Your task to perform on an android device: Open Yahoo.com Image 0: 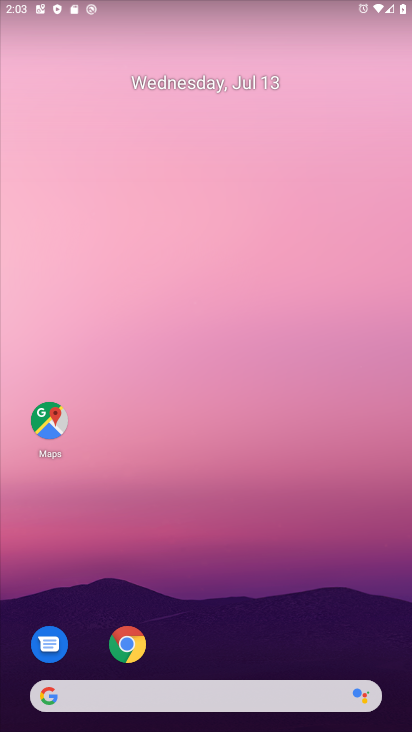
Step 0: drag from (218, 670) to (232, 48)
Your task to perform on an android device: Open Yahoo.com Image 1: 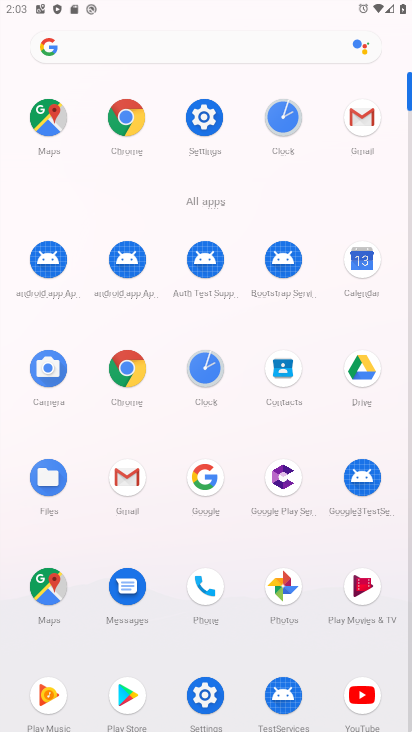
Step 1: click (124, 115)
Your task to perform on an android device: Open Yahoo.com Image 2: 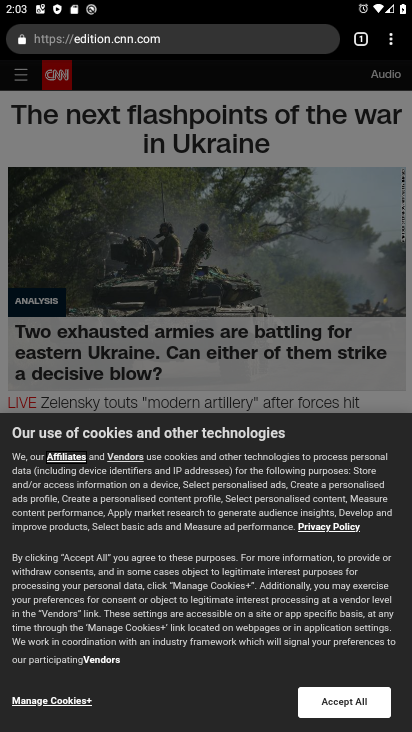
Step 2: click (351, 58)
Your task to perform on an android device: Open Yahoo.com Image 3: 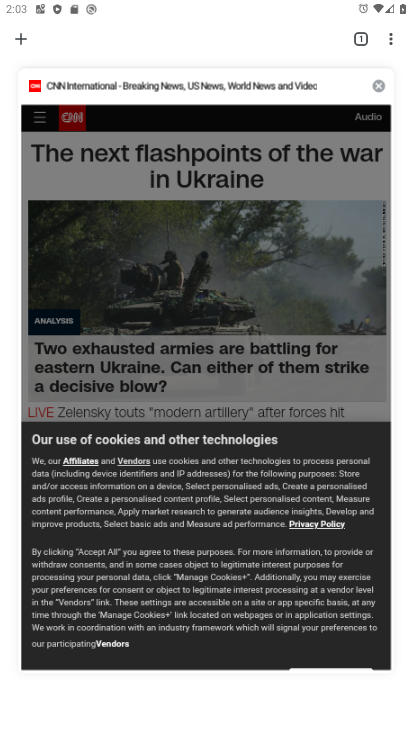
Step 3: click (18, 31)
Your task to perform on an android device: Open Yahoo.com Image 4: 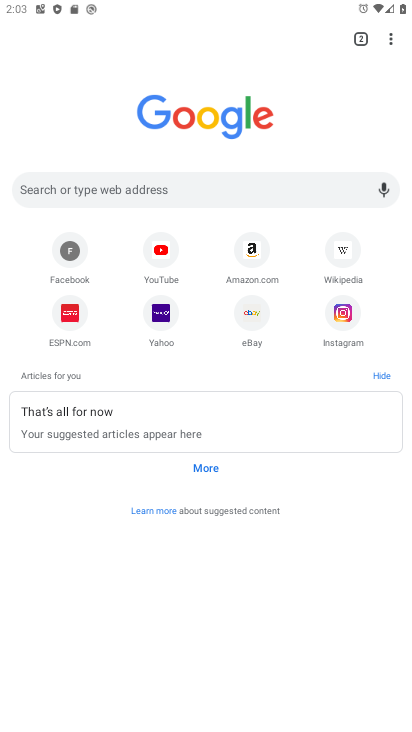
Step 4: click (158, 318)
Your task to perform on an android device: Open Yahoo.com Image 5: 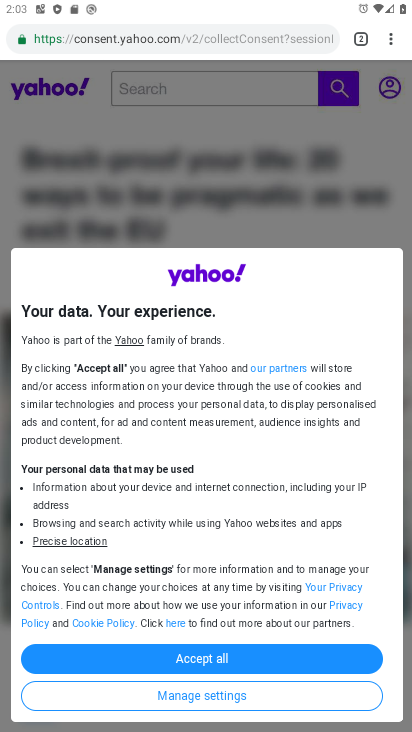
Step 5: click (209, 663)
Your task to perform on an android device: Open Yahoo.com Image 6: 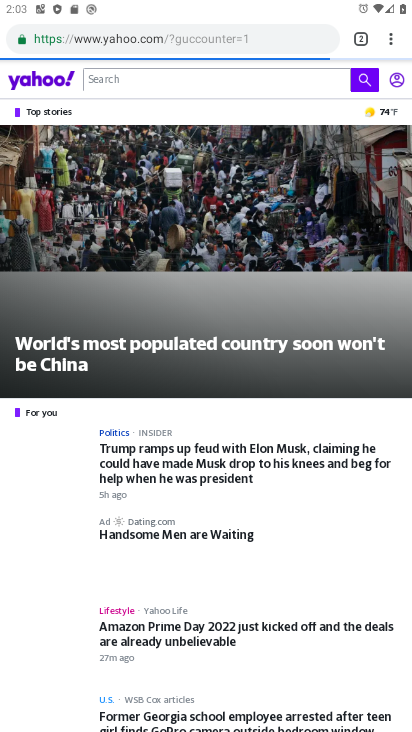
Step 6: task complete